Your task to perform on an android device: change notifications settings Image 0: 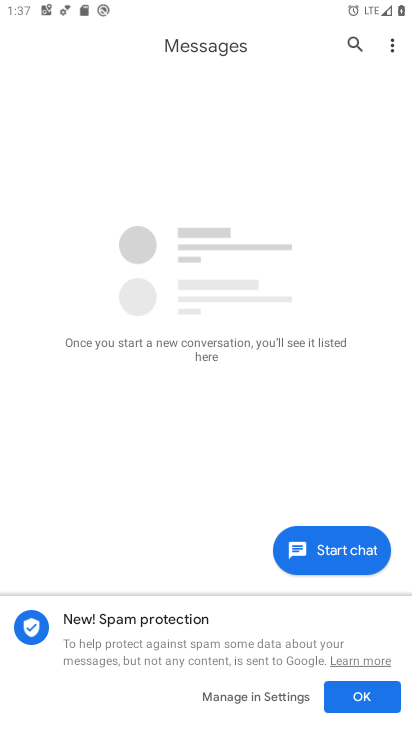
Step 0: press home button
Your task to perform on an android device: change notifications settings Image 1: 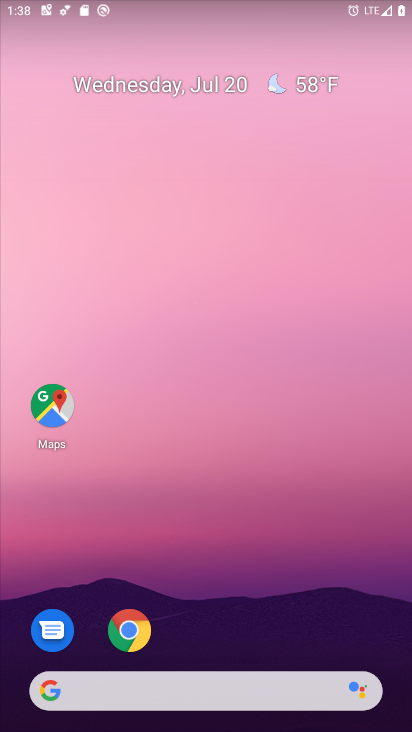
Step 1: drag from (191, 629) to (195, 23)
Your task to perform on an android device: change notifications settings Image 2: 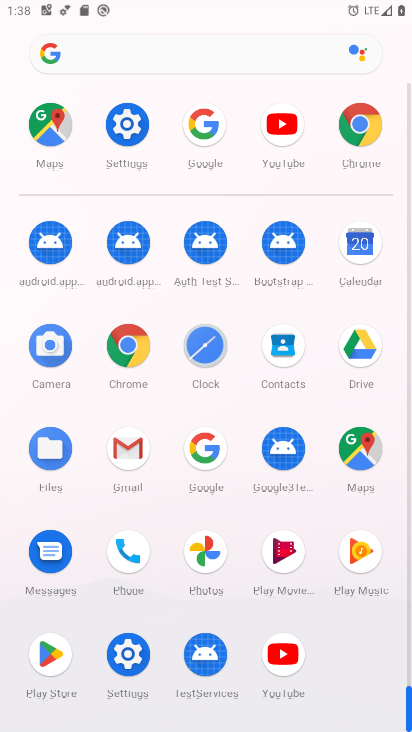
Step 2: click (110, 130)
Your task to perform on an android device: change notifications settings Image 3: 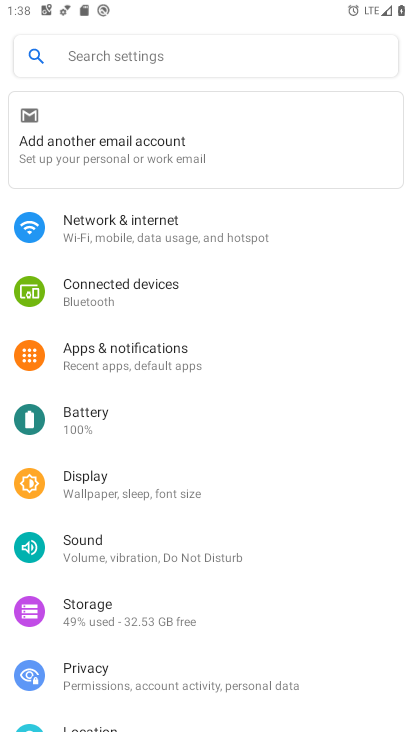
Step 3: click (103, 372)
Your task to perform on an android device: change notifications settings Image 4: 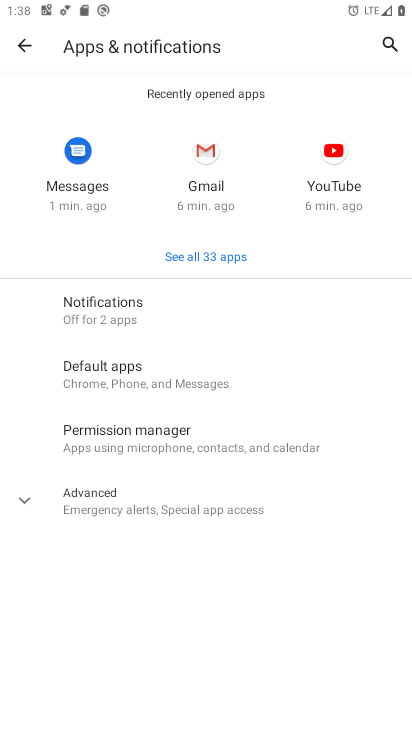
Step 4: click (183, 308)
Your task to perform on an android device: change notifications settings Image 5: 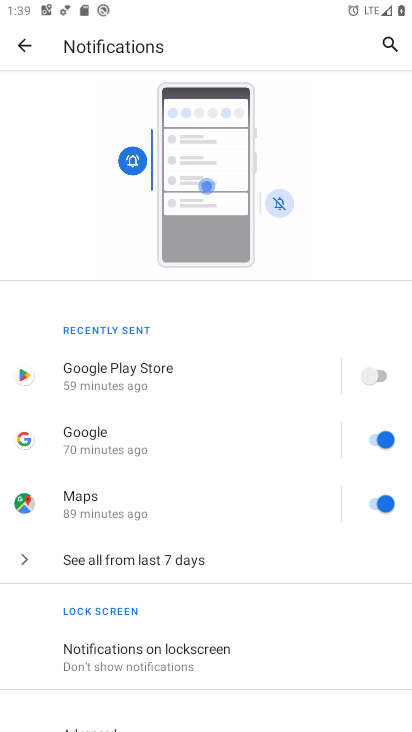
Step 5: click (382, 364)
Your task to perform on an android device: change notifications settings Image 6: 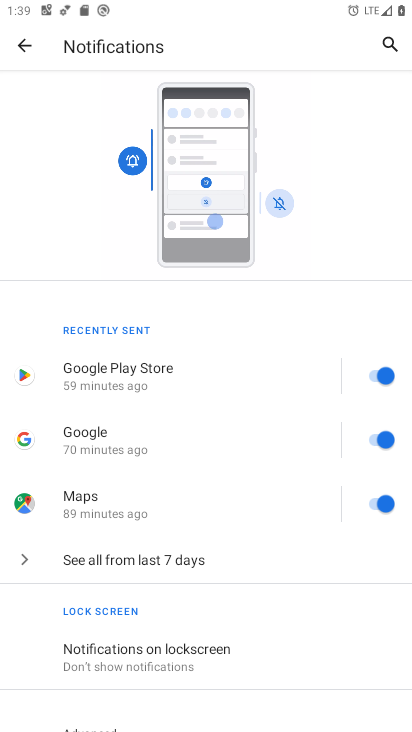
Step 6: task complete